Your task to perform on an android device: turn on airplane mode Image 0: 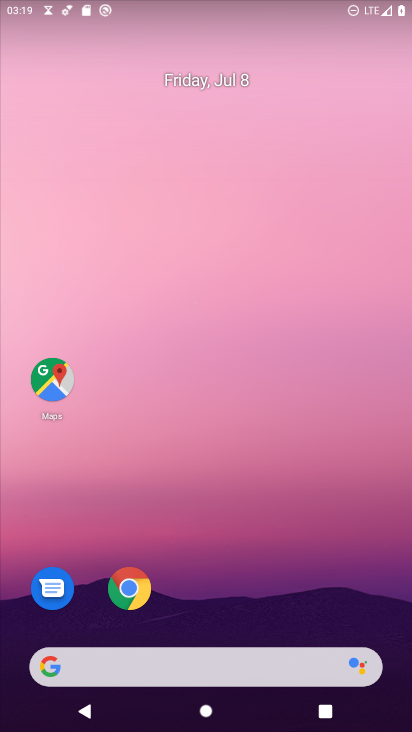
Step 0: drag from (186, 559) to (164, 234)
Your task to perform on an android device: turn on airplane mode Image 1: 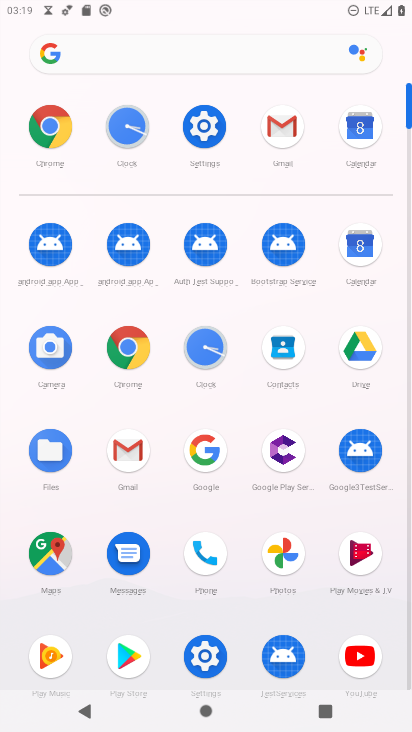
Step 1: click (202, 124)
Your task to perform on an android device: turn on airplane mode Image 2: 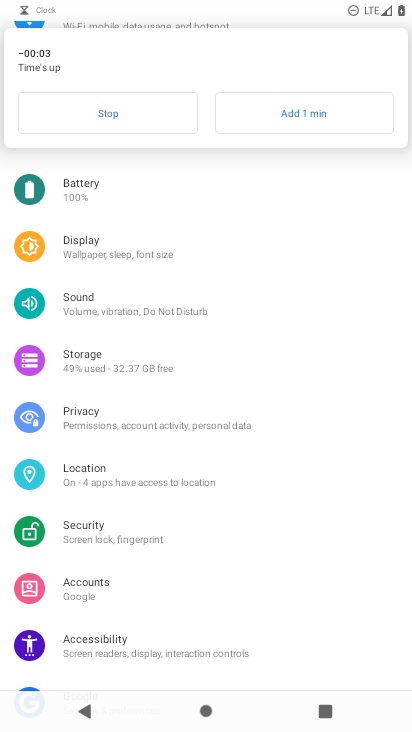
Step 2: click (121, 114)
Your task to perform on an android device: turn on airplane mode Image 3: 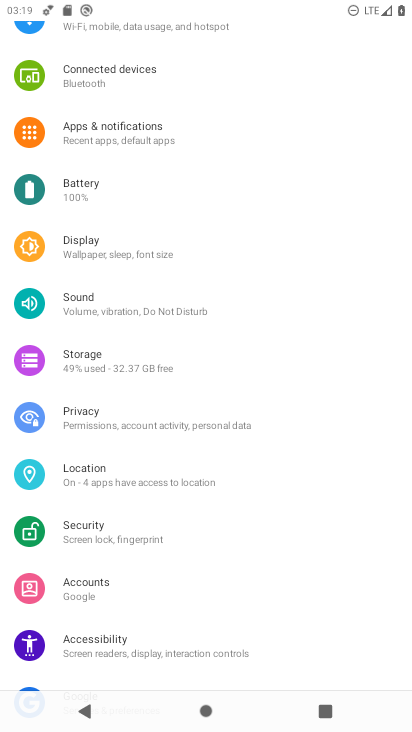
Step 3: click (134, 27)
Your task to perform on an android device: turn on airplane mode Image 4: 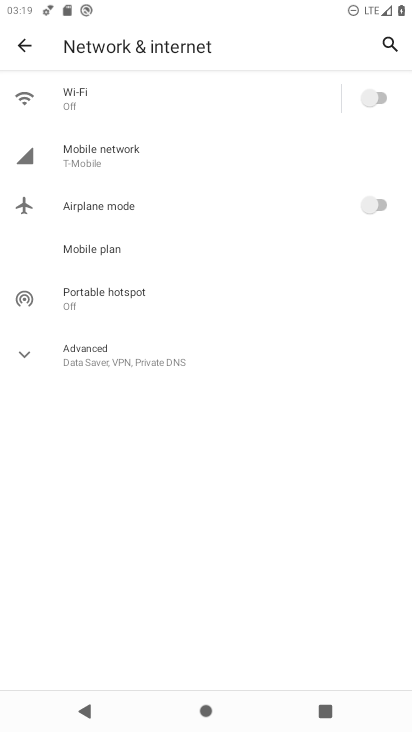
Step 4: click (386, 197)
Your task to perform on an android device: turn on airplane mode Image 5: 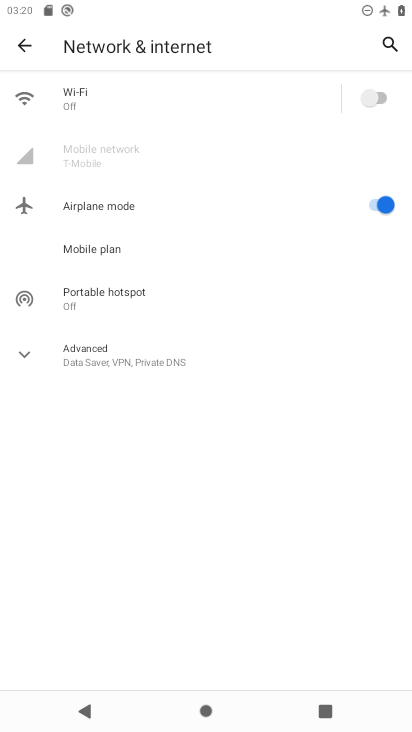
Step 5: task complete